Your task to perform on an android device: Go to Maps Image 0: 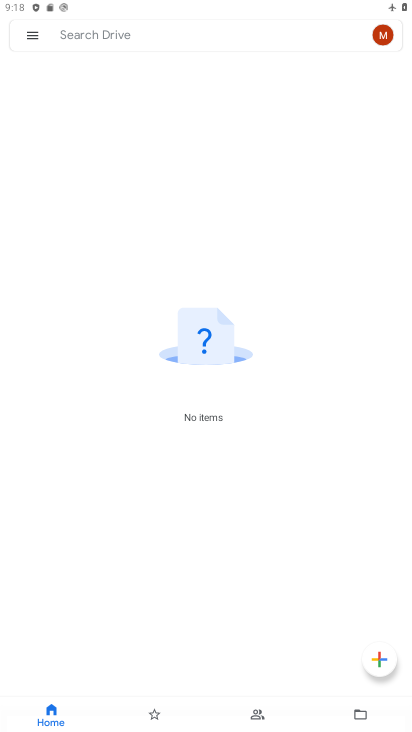
Step 0: press home button
Your task to perform on an android device: Go to Maps Image 1: 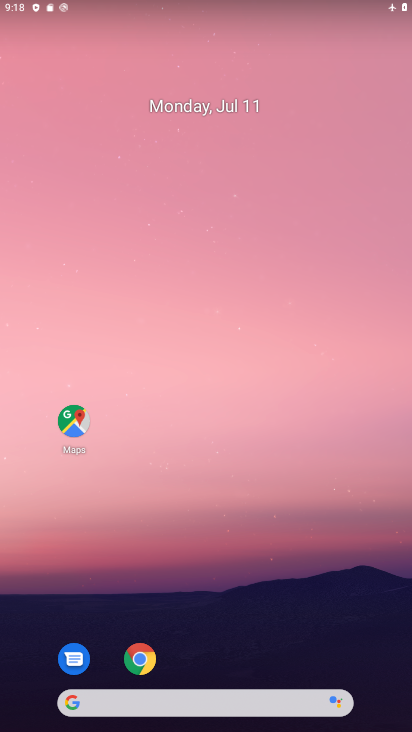
Step 1: click (79, 416)
Your task to perform on an android device: Go to Maps Image 2: 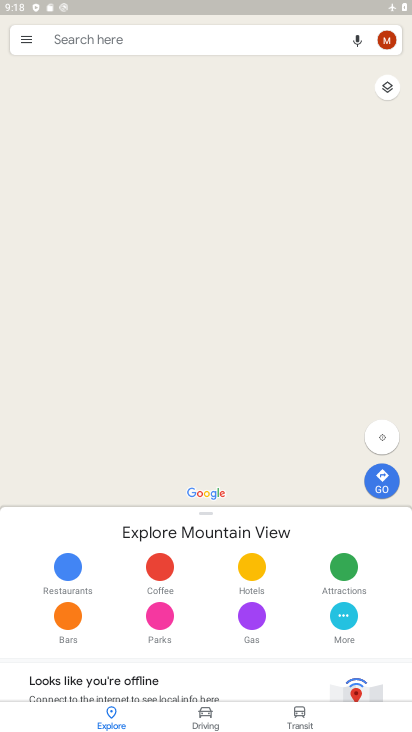
Step 2: task complete